Your task to perform on an android device: Do I have any events today? Image 0: 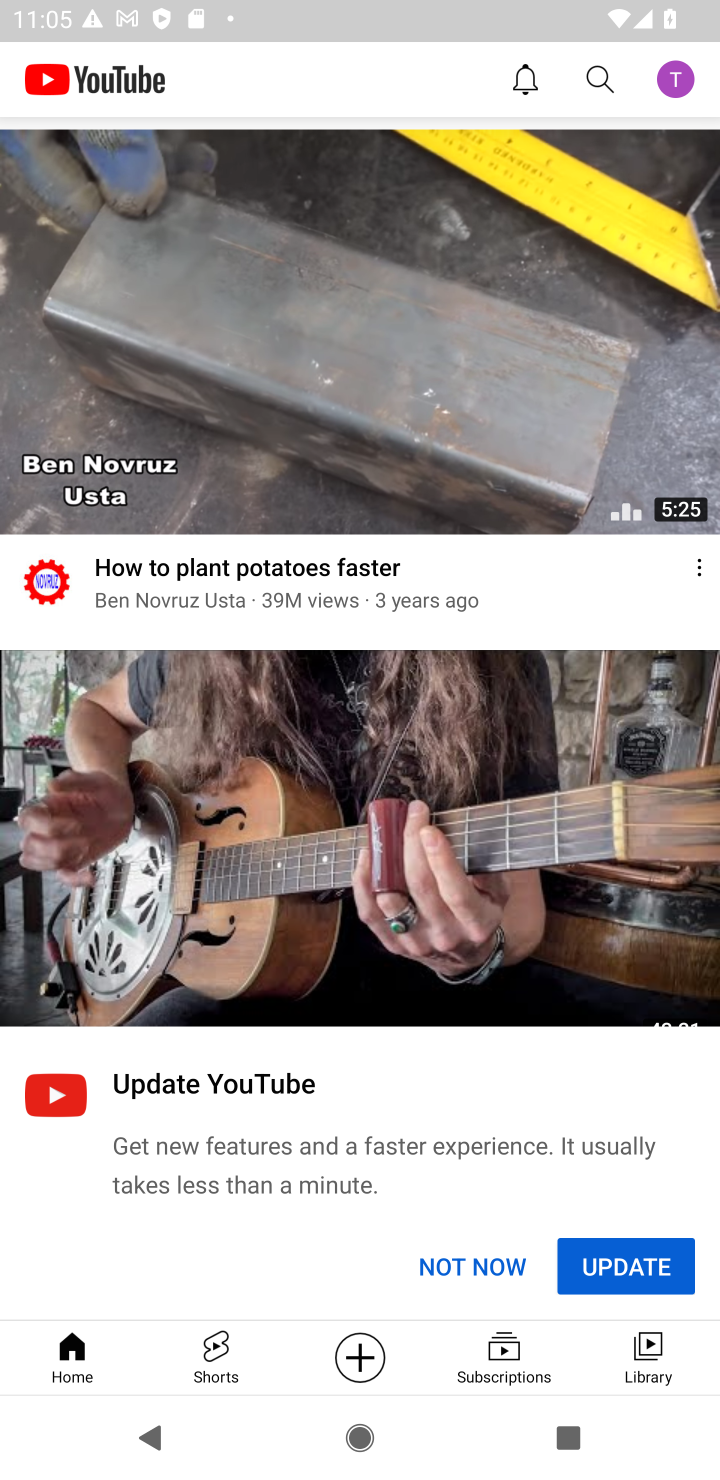
Step 0: press home button
Your task to perform on an android device: Do I have any events today? Image 1: 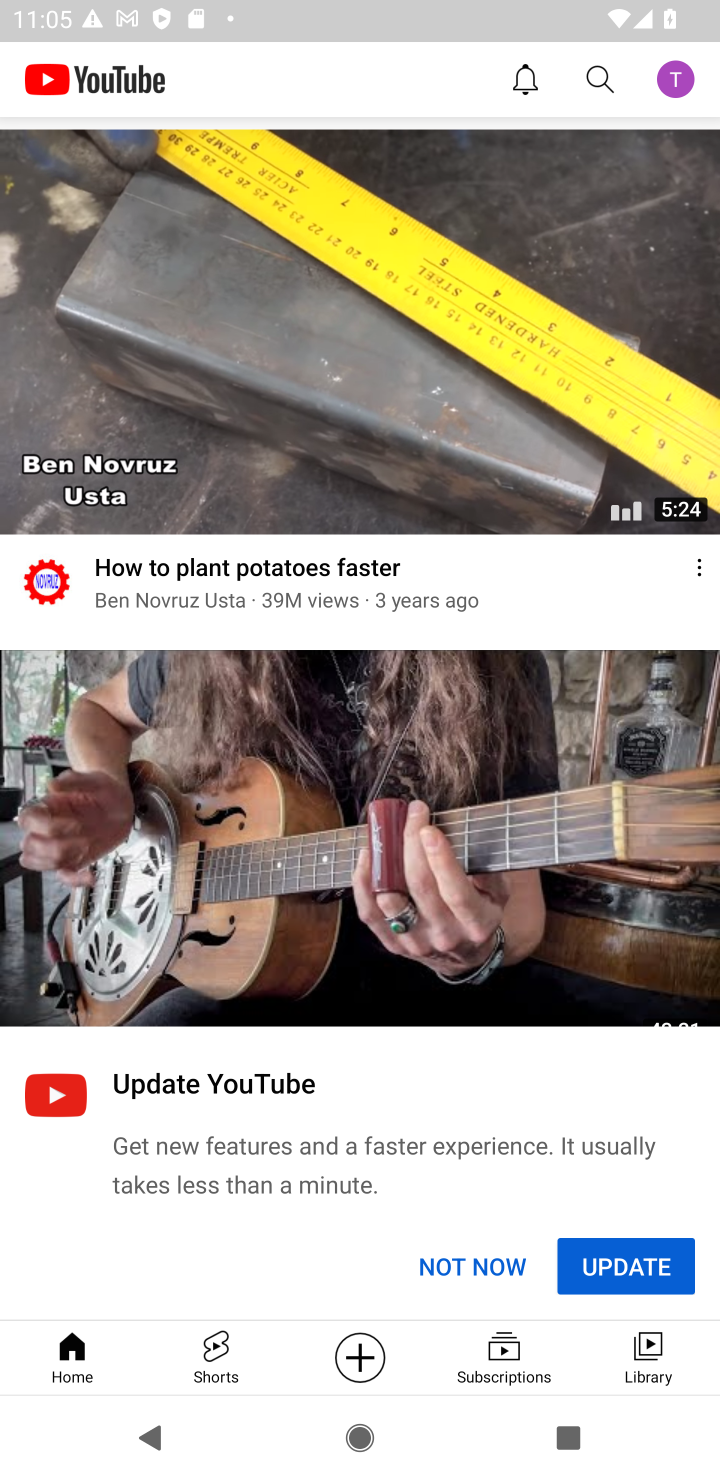
Step 1: press home button
Your task to perform on an android device: Do I have any events today? Image 2: 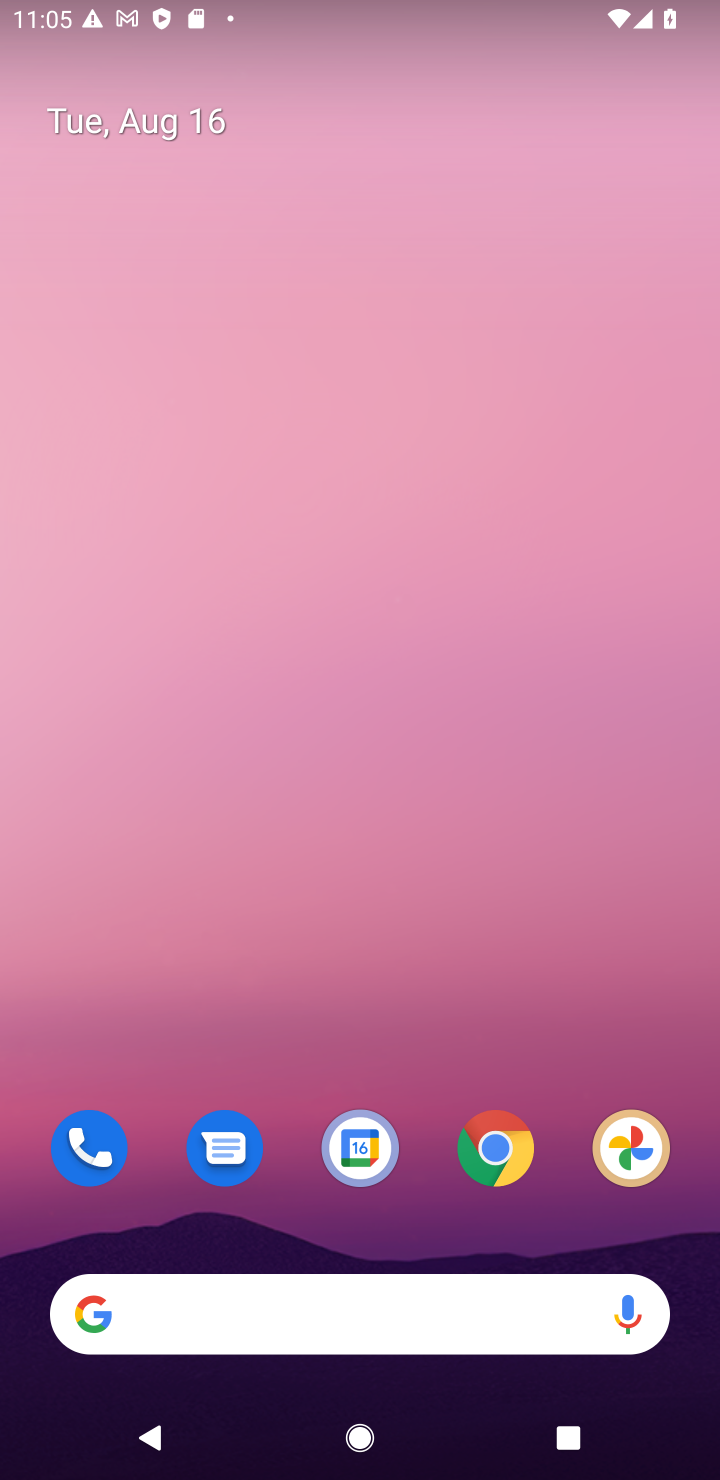
Step 2: press home button
Your task to perform on an android device: Do I have any events today? Image 3: 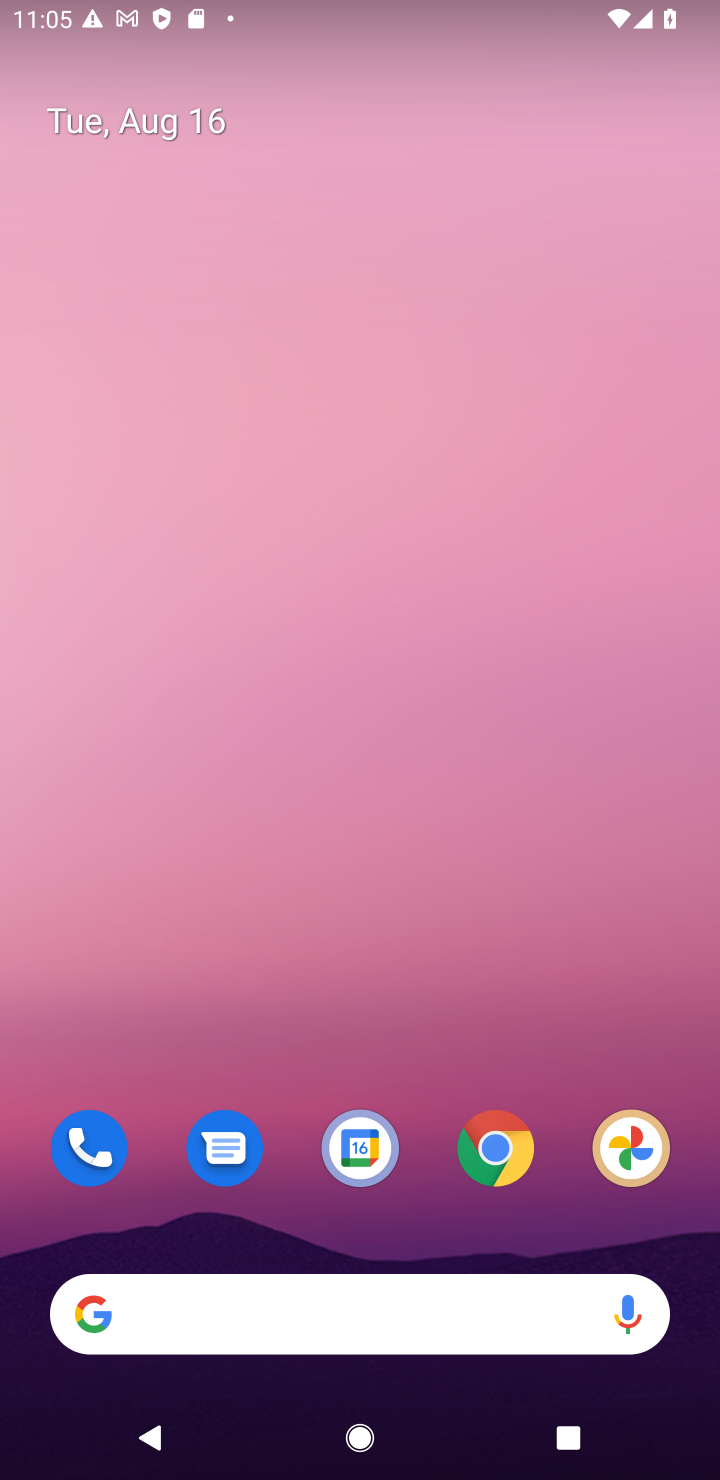
Step 3: press home button
Your task to perform on an android device: Do I have any events today? Image 4: 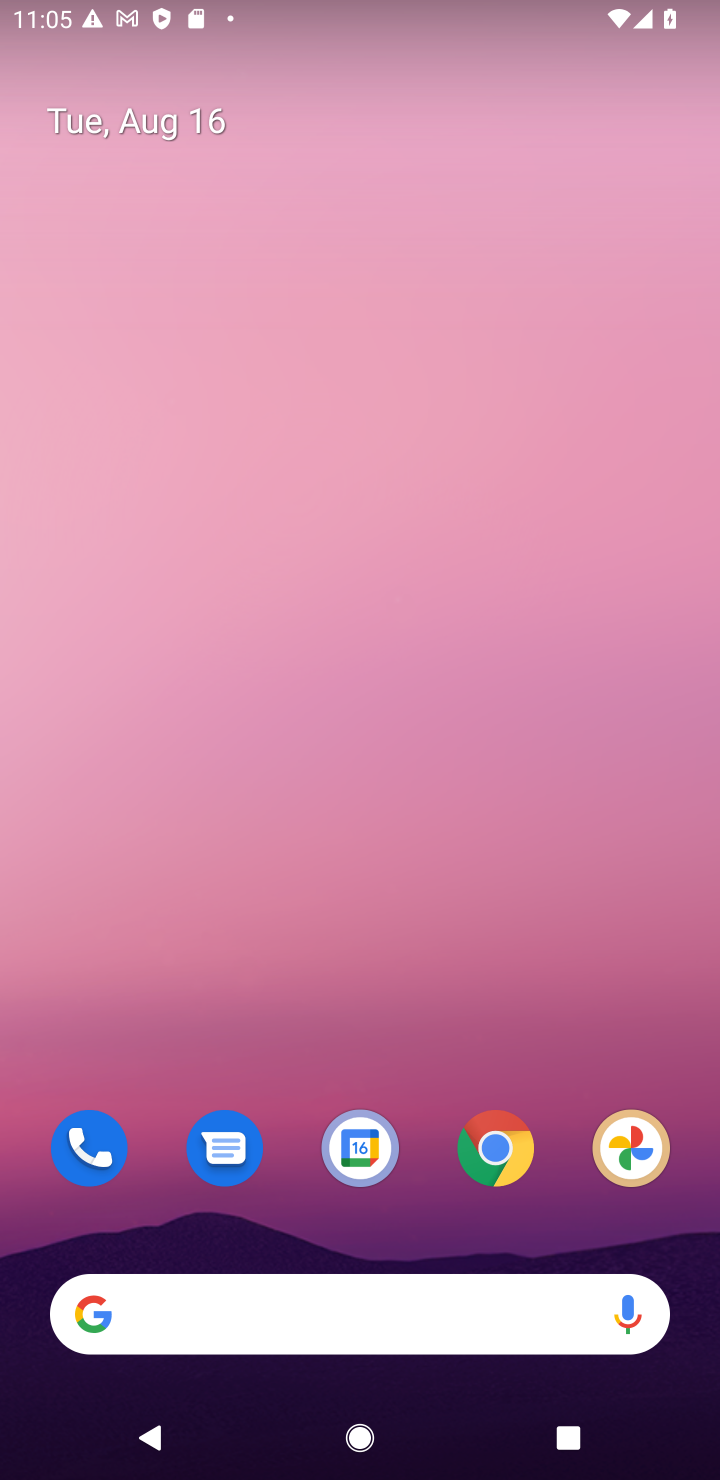
Step 4: press home button
Your task to perform on an android device: Do I have any events today? Image 5: 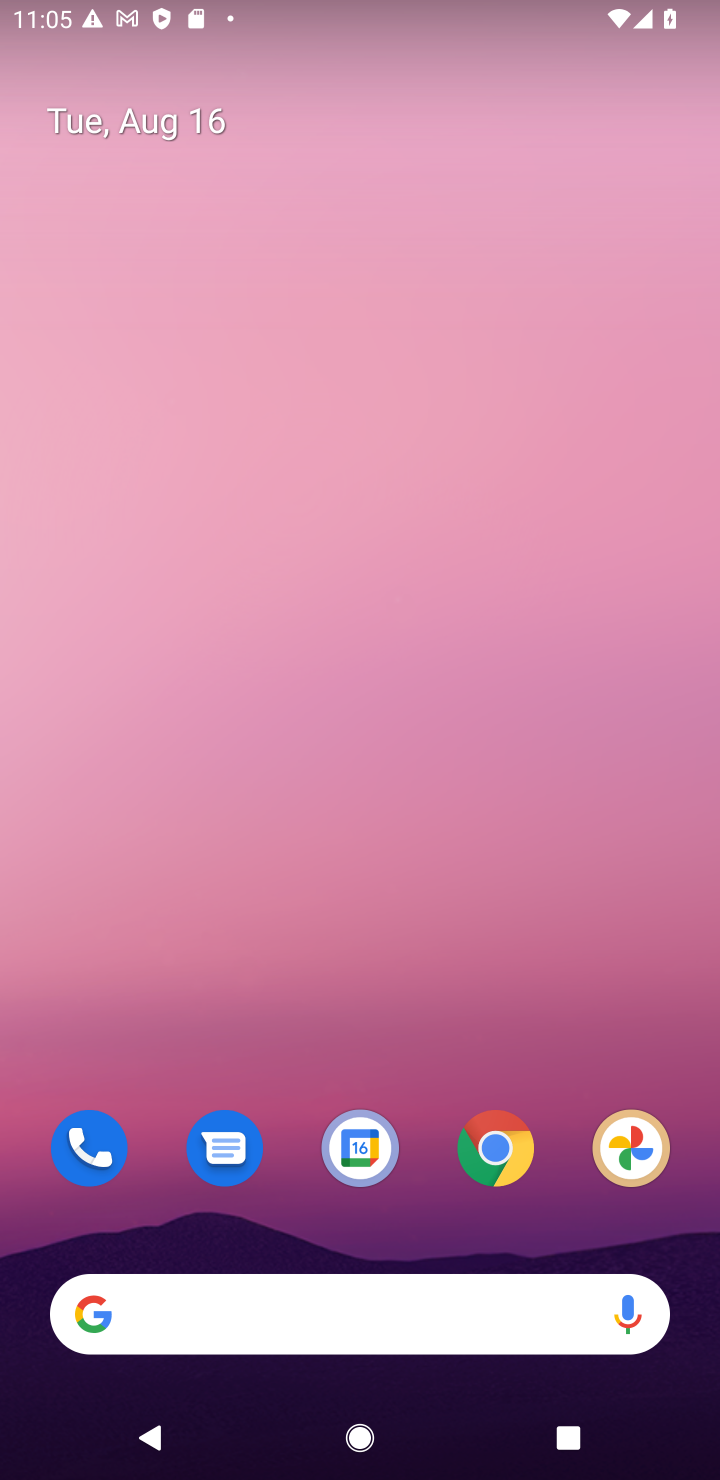
Step 5: press home button
Your task to perform on an android device: Do I have any events today? Image 6: 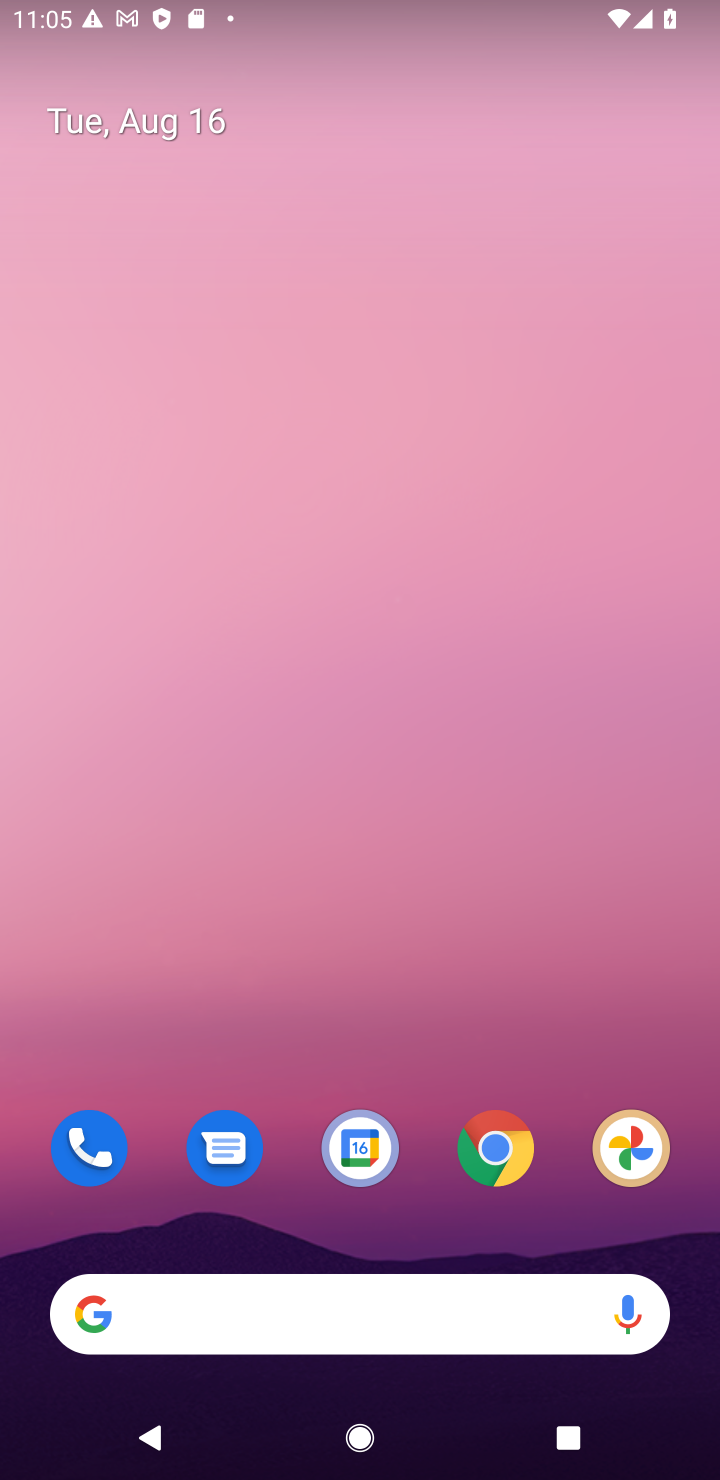
Step 6: press home button
Your task to perform on an android device: Do I have any events today? Image 7: 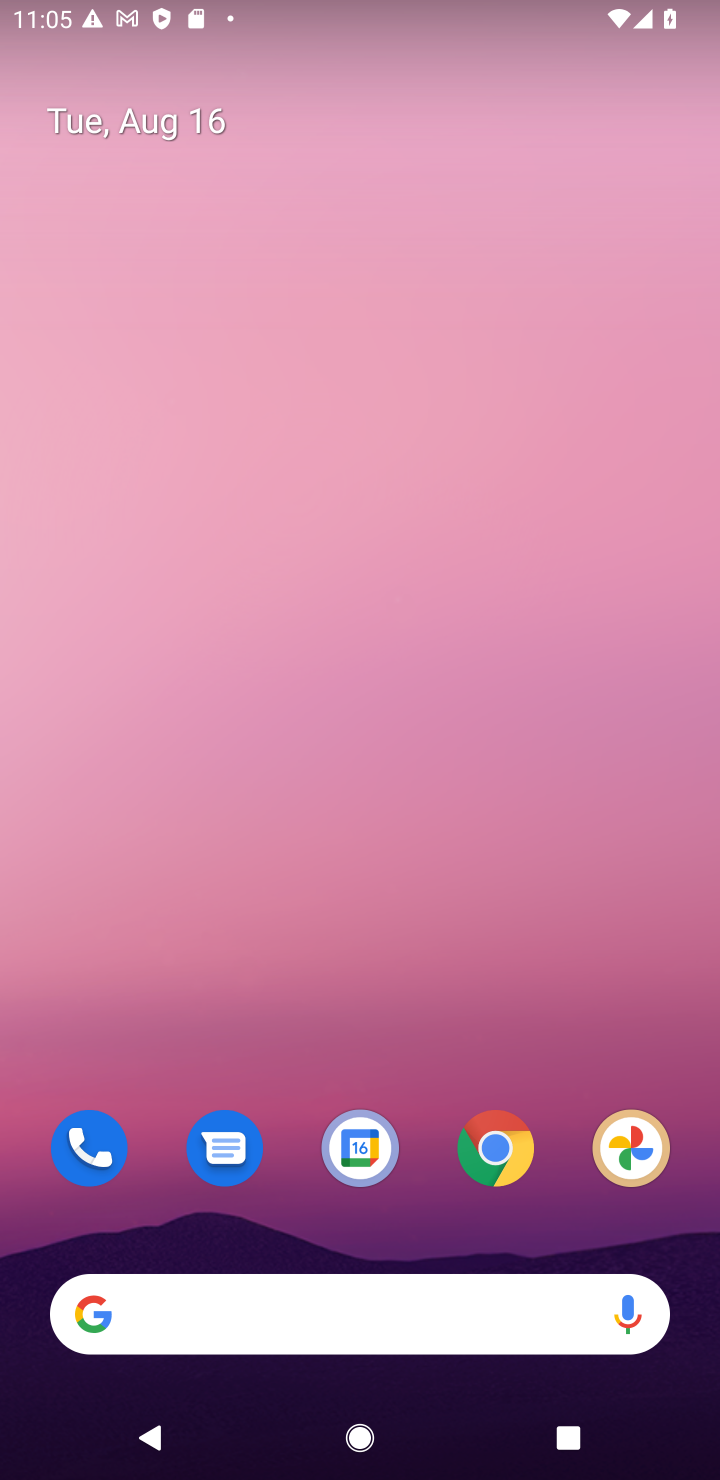
Step 7: press home button
Your task to perform on an android device: Do I have any events today? Image 8: 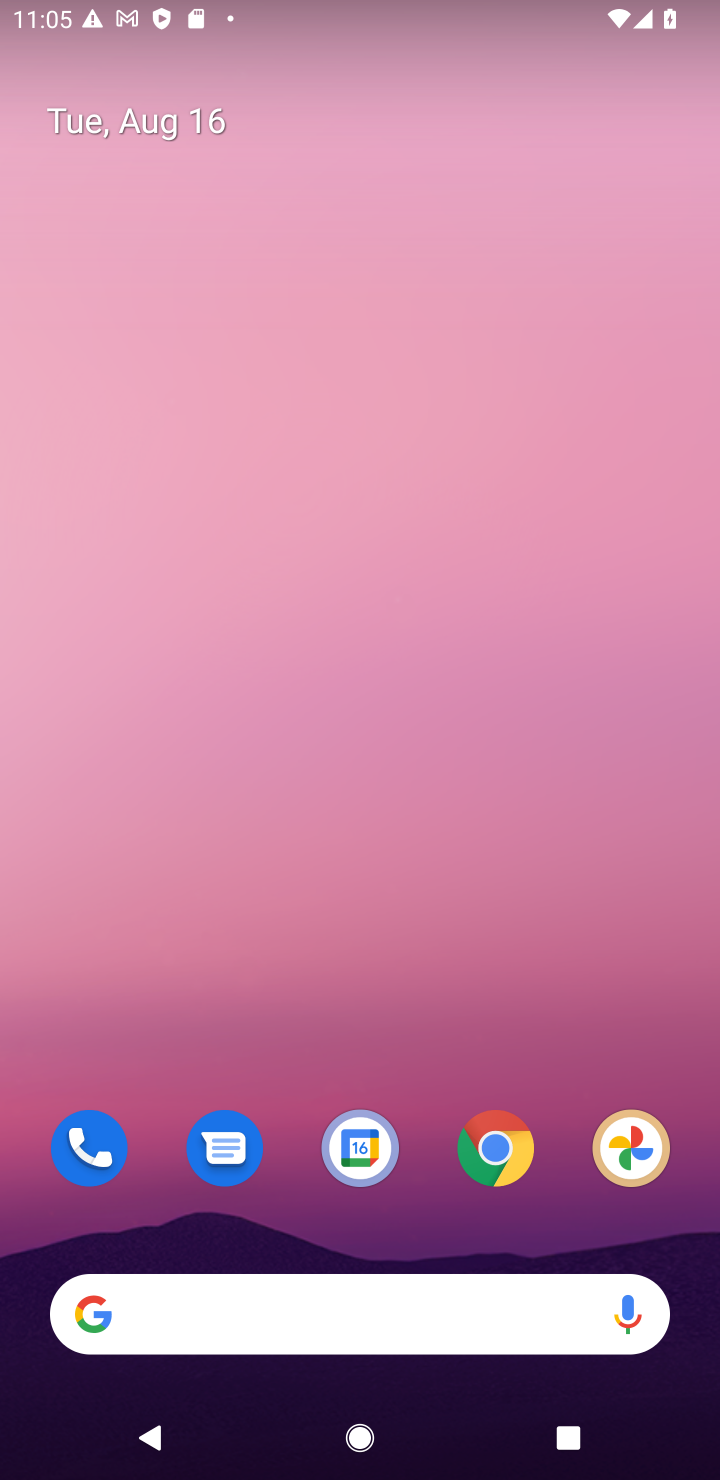
Step 8: press home button
Your task to perform on an android device: Do I have any events today? Image 9: 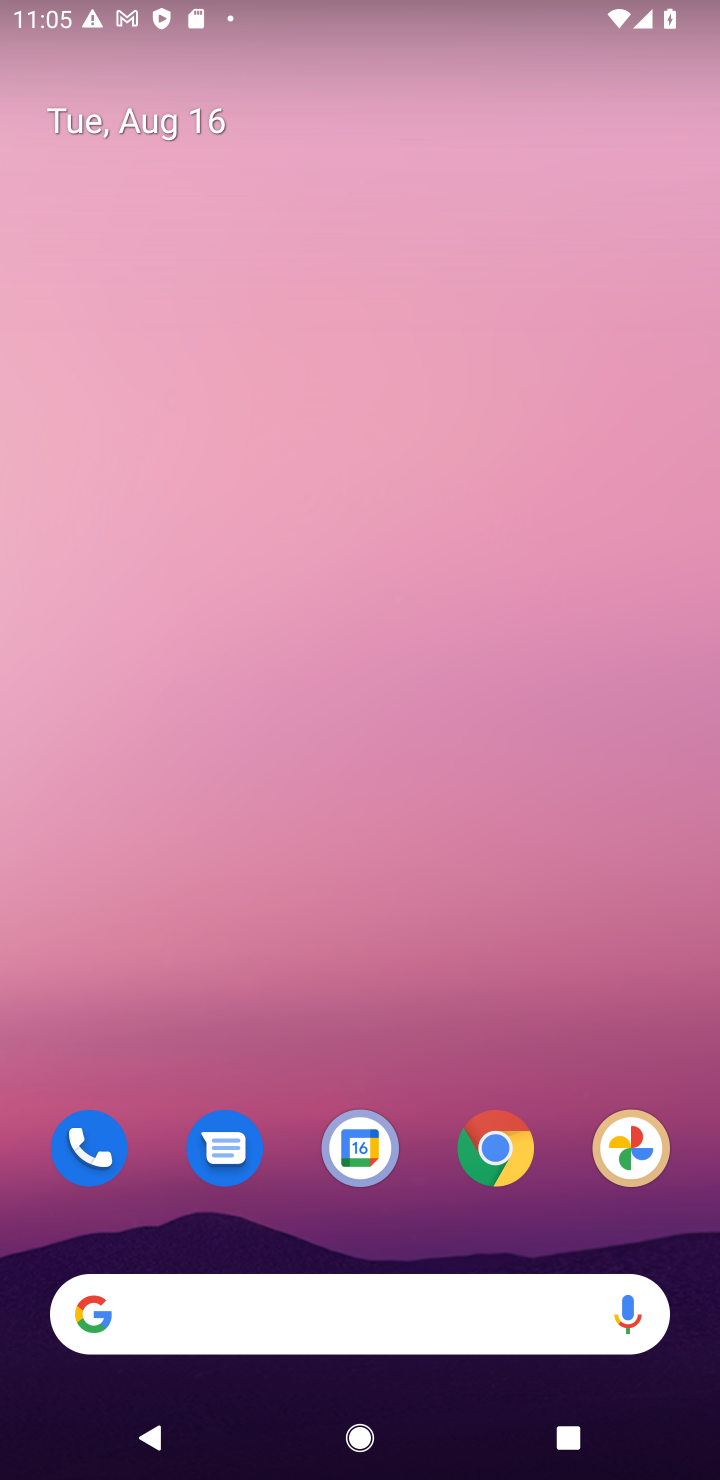
Step 9: press home button
Your task to perform on an android device: Do I have any events today? Image 10: 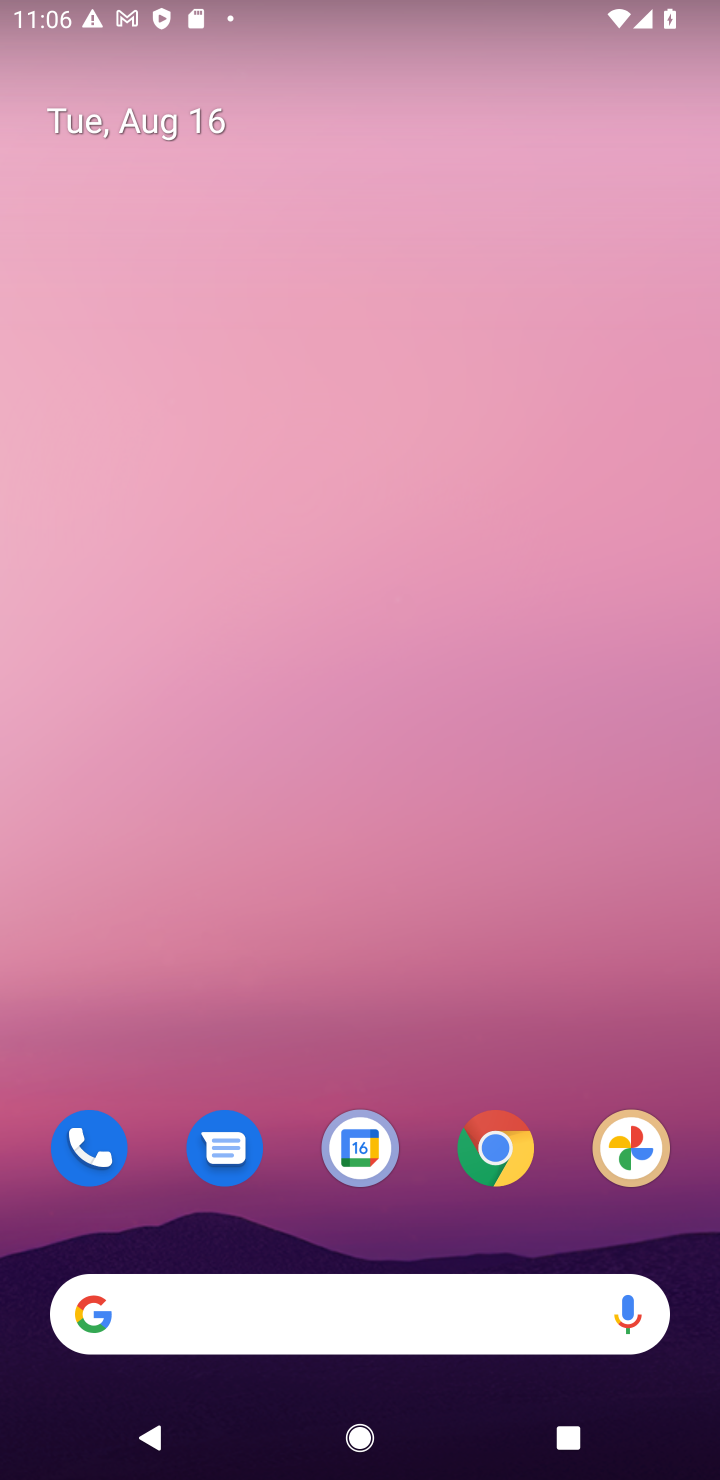
Step 10: drag from (399, 1227) to (338, 117)
Your task to perform on an android device: Do I have any events today? Image 11: 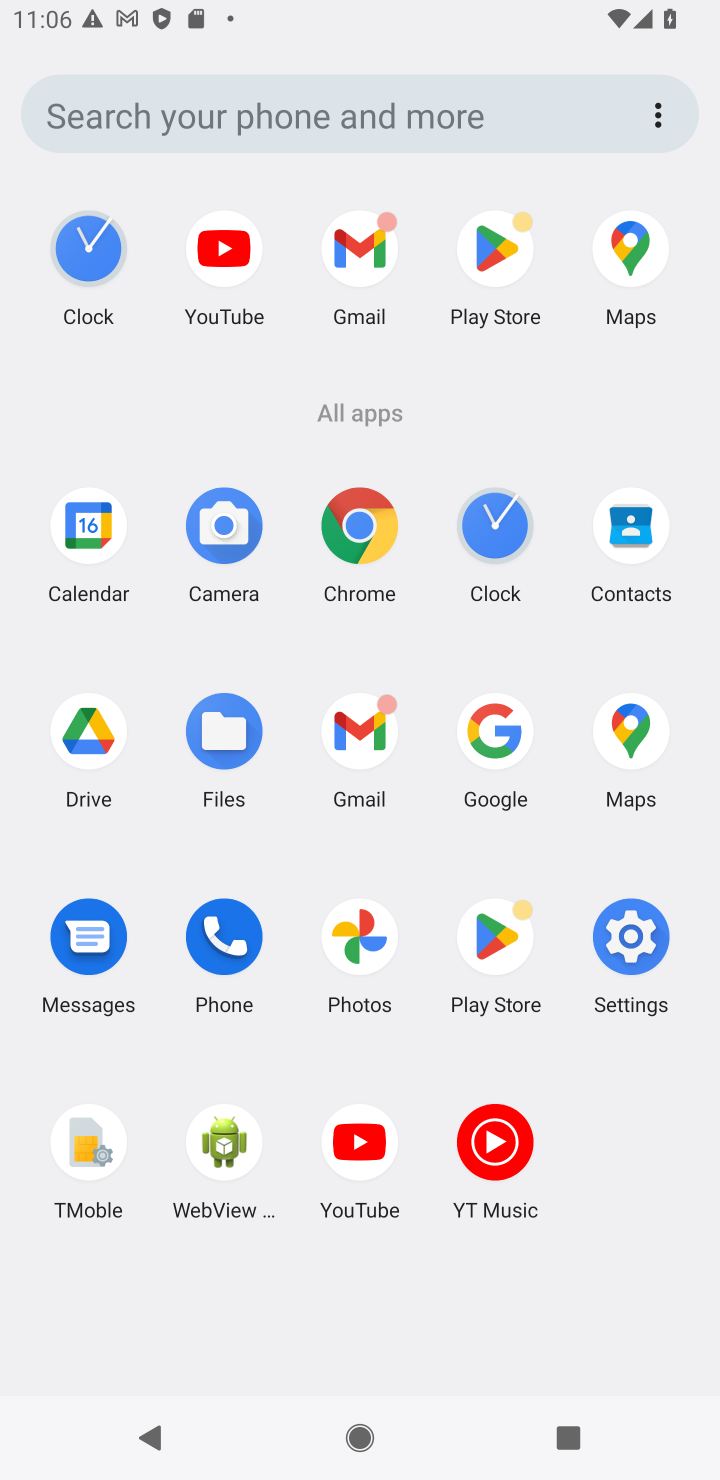
Step 11: click (78, 517)
Your task to perform on an android device: Do I have any events today? Image 12: 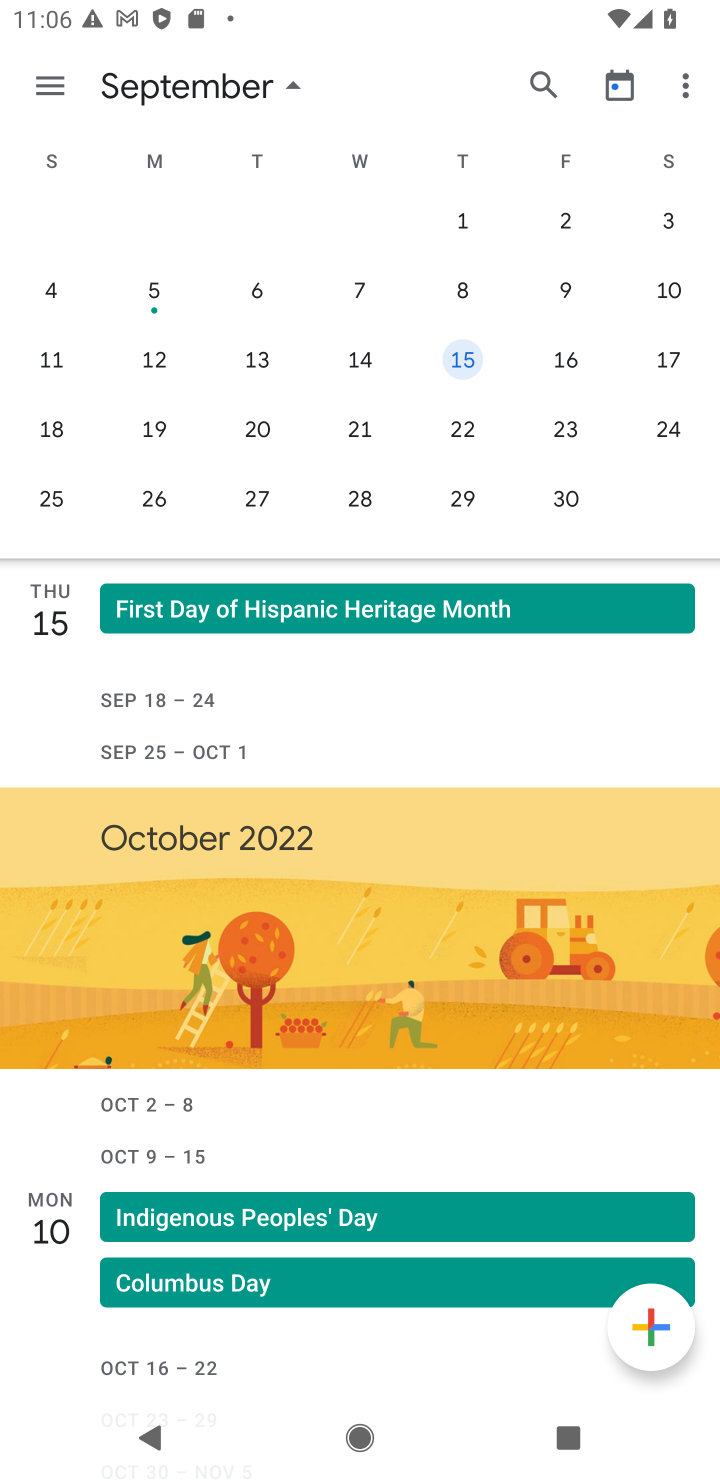
Step 12: click (29, 395)
Your task to perform on an android device: Do I have any events today? Image 13: 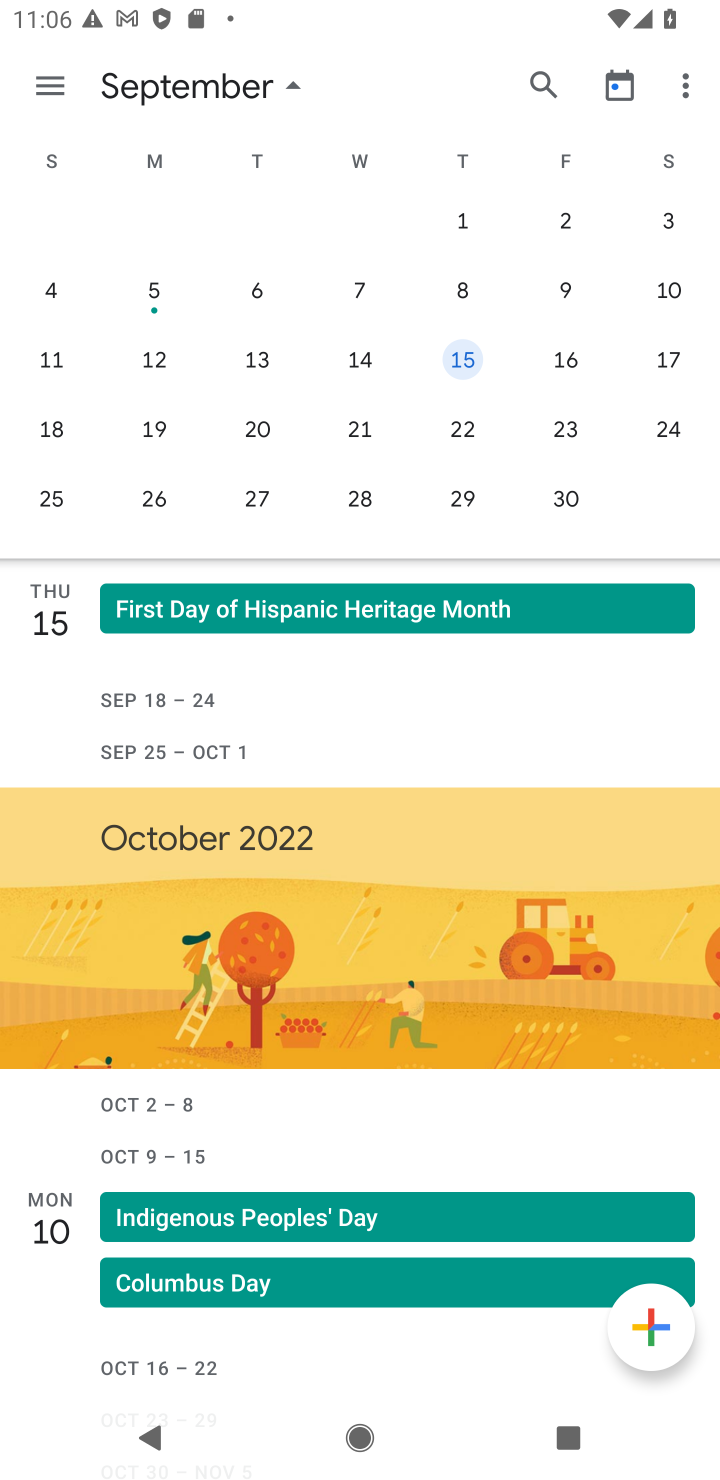
Step 13: drag from (79, 427) to (637, 372)
Your task to perform on an android device: Do I have any events today? Image 14: 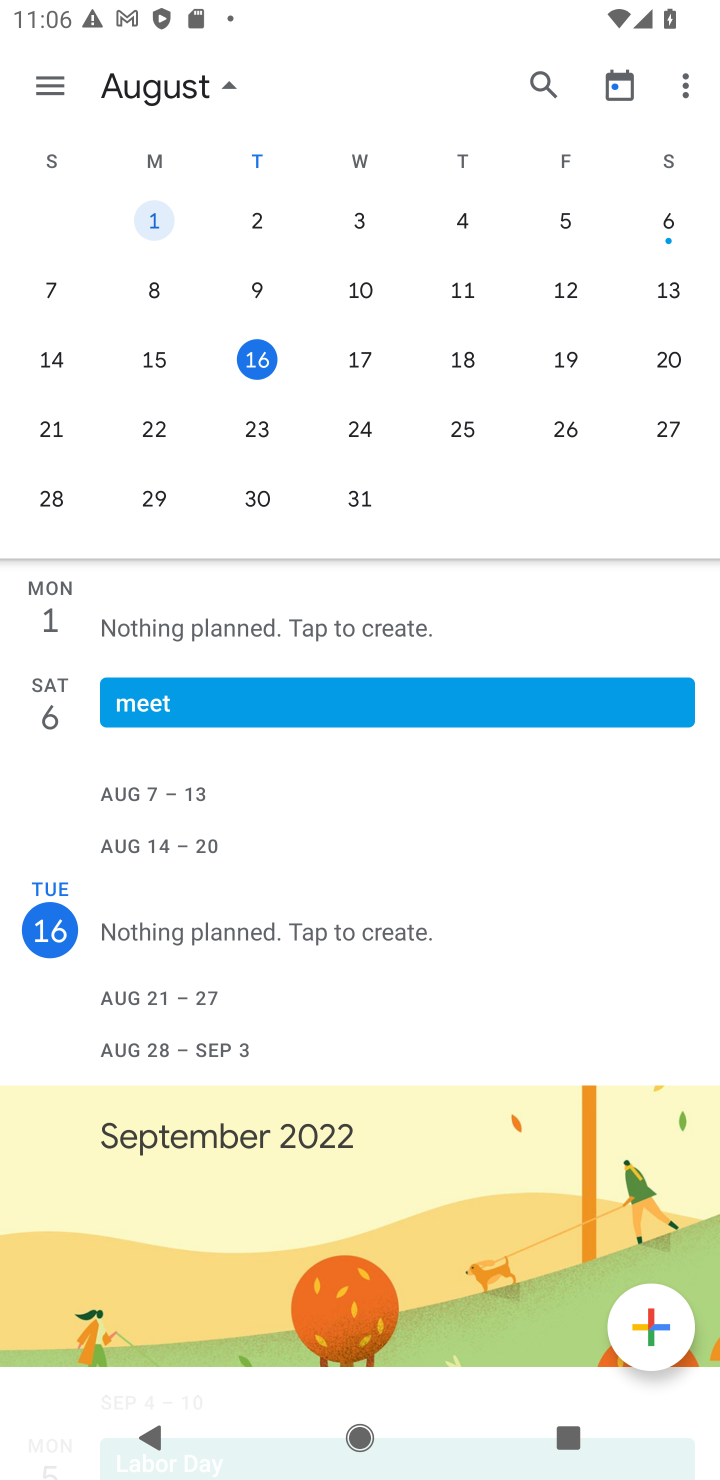
Step 14: click (250, 369)
Your task to perform on an android device: Do I have any events today? Image 15: 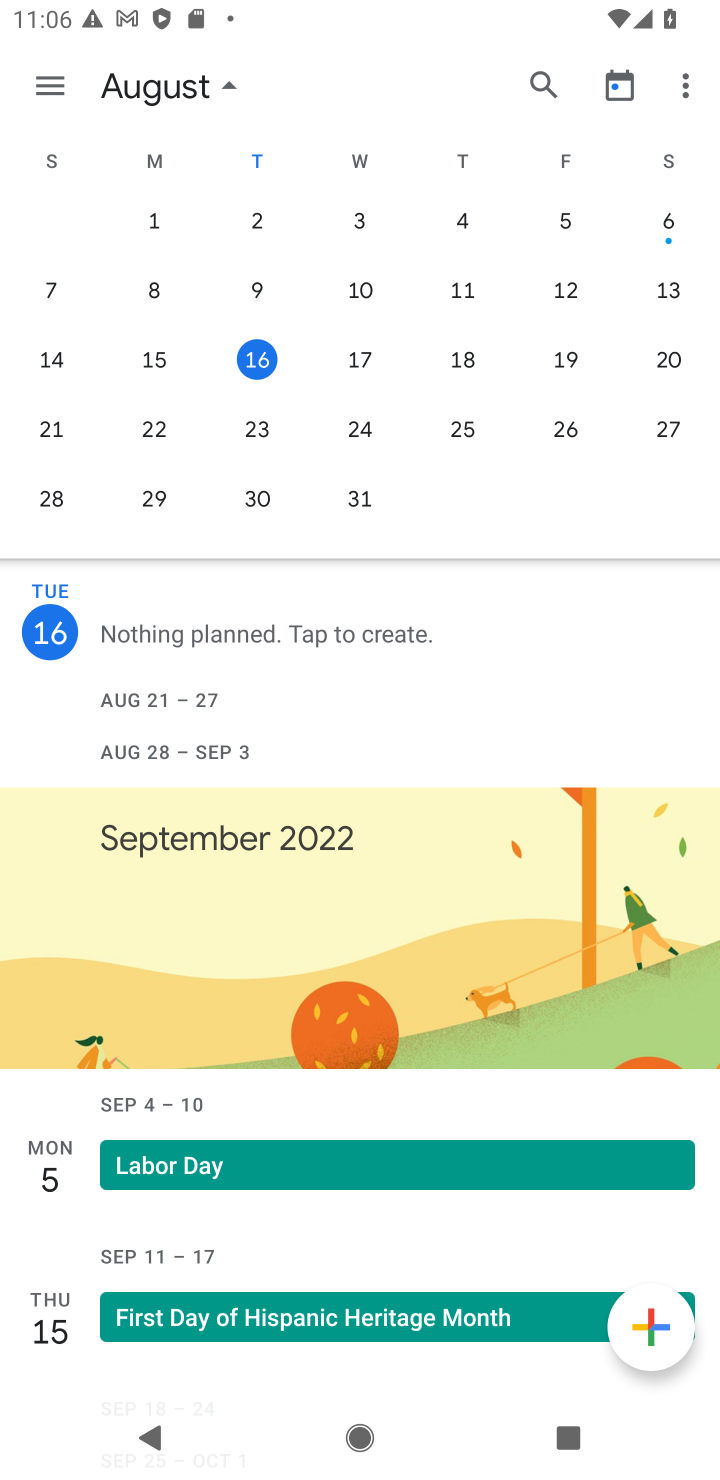
Step 15: task complete